Your task to perform on an android device: Search for "beats solo 3" on costco.com, select the first entry, add it to the cart, then select checkout. Image 0: 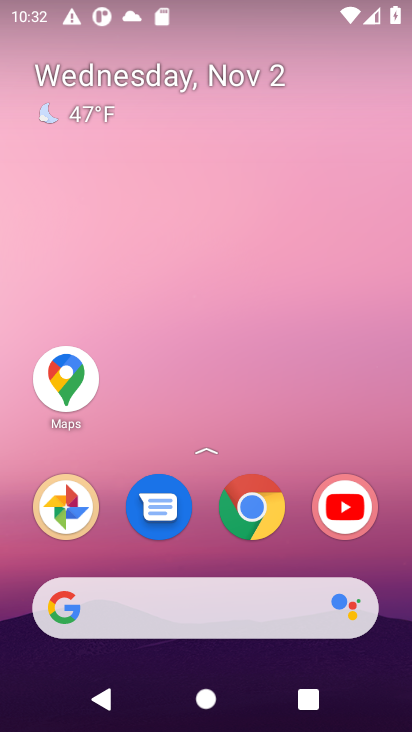
Step 0: click (236, 599)
Your task to perform on an android device: Search for "beats solo 3" on costco.com, select the first entry, add it to the cart, then select checkout. Image 1: 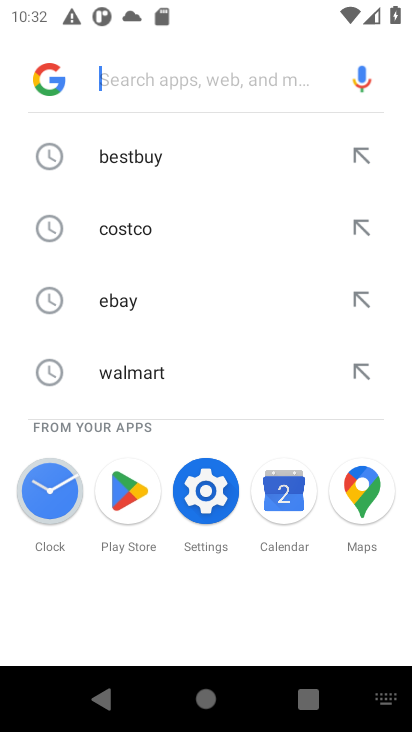
Step 1: click (121, 216)
Your task to perform on an android device: Search for "beats solo 3" on costco.com, select the first entry, add it to the cart, then select checkout. Image 2: 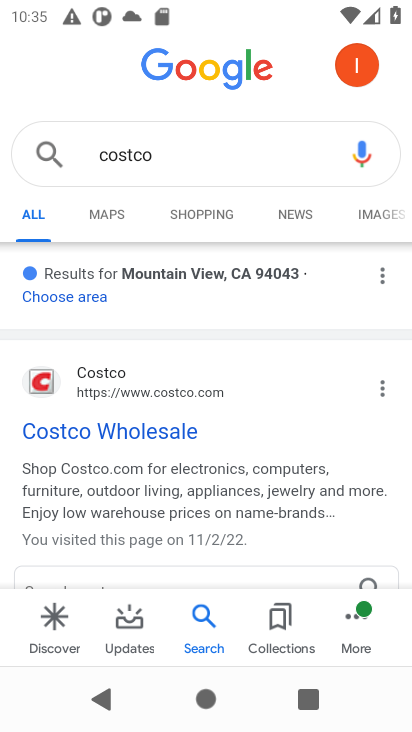
Step 2: click (160, 426)
Your task to perform on an android device: Search for "beats solo 3" on costco.com, select the first entry, add it to the cart, then select checkout. Image 3: 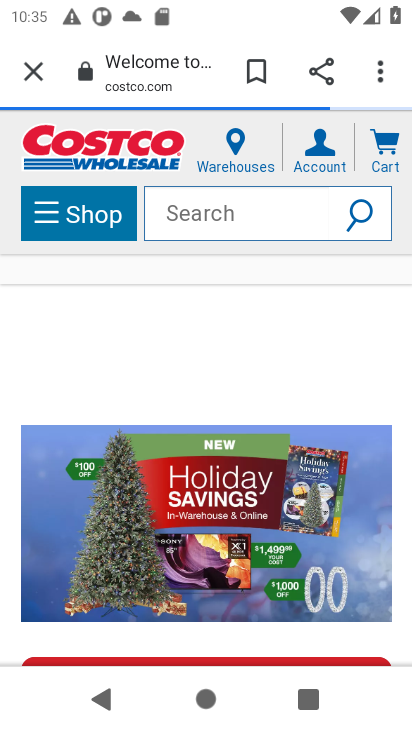
Step 3: click (240, 195)
Your task to perform on an android device: Search for "beats solo 3" on costco.com, select the first entry, add it to the cart, then select checkout. Image 4: 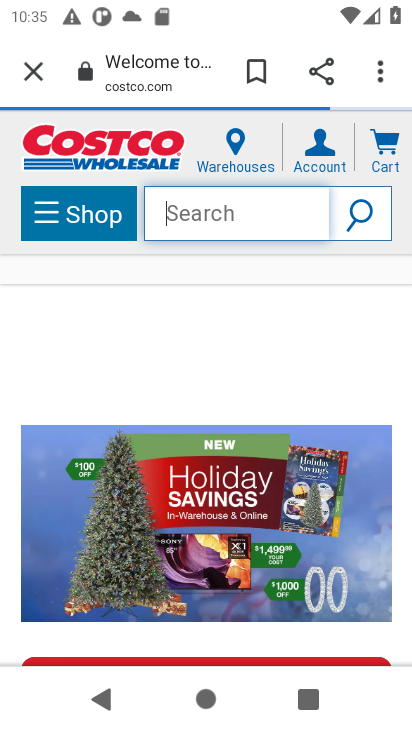
Step 4: click (214, 209)
Your task to perform on an android device: Search for "beats solo 3" on costco.com, select the first entry, add it to the cart, then select checkout. Image 5: 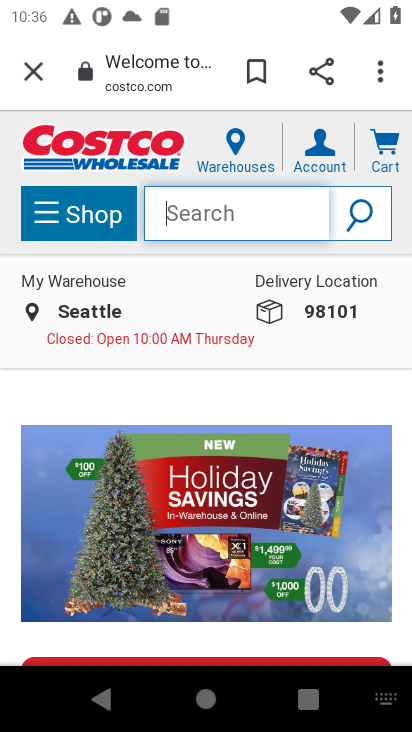
Step 5: type "beats solo 3"
Your task to perform on an android device: Search for "beats solo 3" on costco.com, select the first entry, add it to the cart, then select checkout. Image 6: 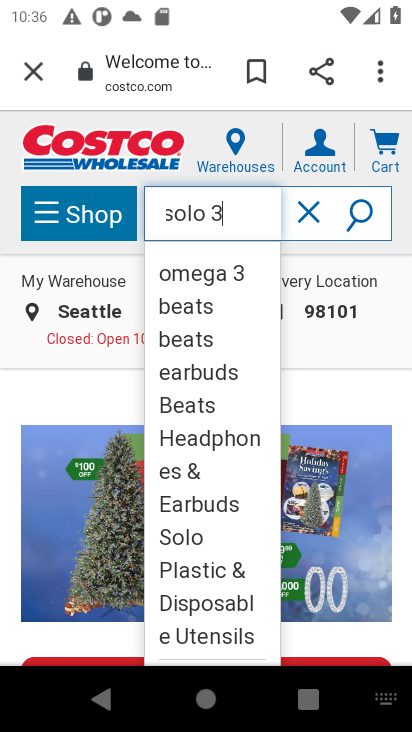
Step 6: click (356, 228)
Your task to perform on an android device: Search for "beats solo 3" on costco.com, select the first entry, add it to the cart, then select checkout. Image 7: 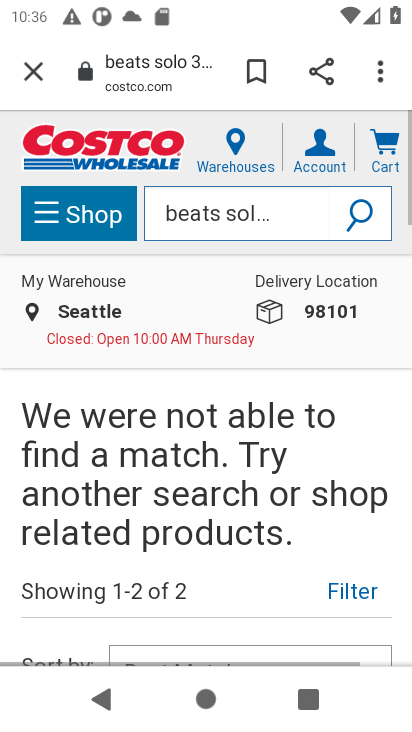
Step 7: task complete